Your task to perform on an android device: check data usage Image 0: 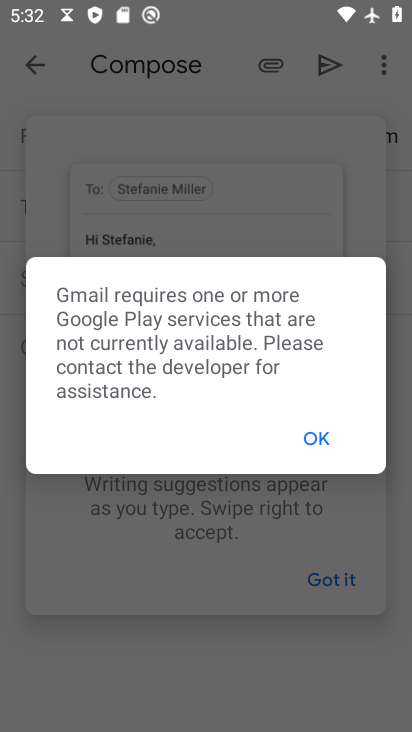
Step 0: press home button
Your task to perform on an android device: check data usage Image 1: 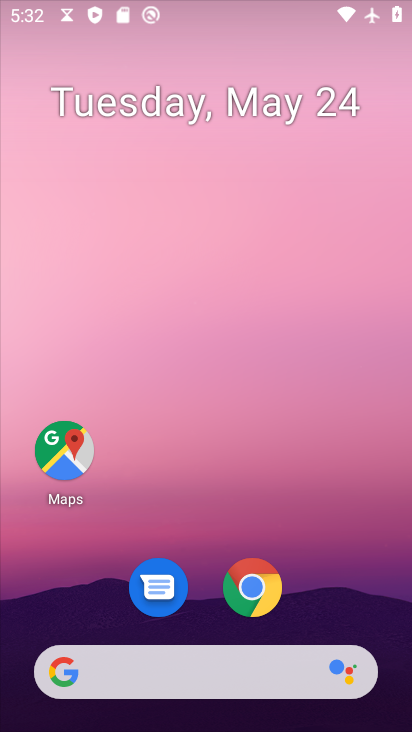
Step 1: drag from (340, 474) to (201, 45)
Your task to perform on an android device: check data usage Image 2: 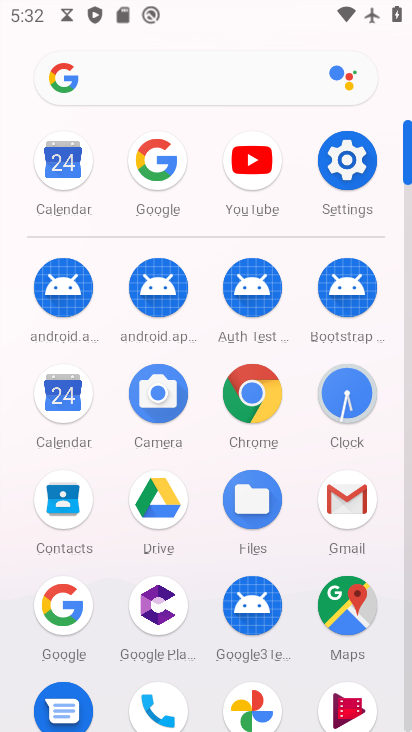
Step 2: click (362, 148)
Your task to perform on an android device: check data usage Image 3: 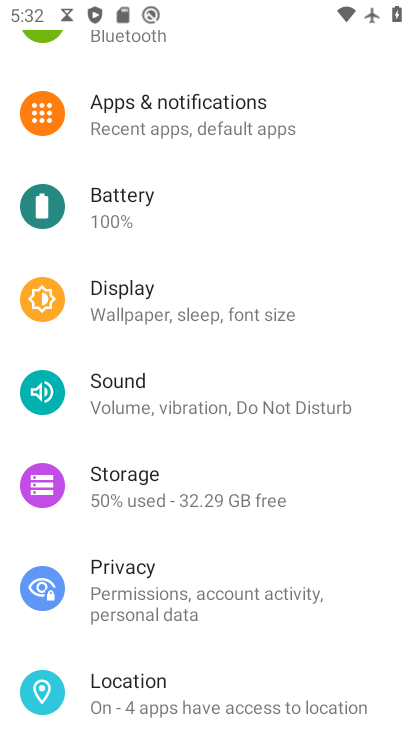
Step 3: drag from (249, 186) to (205, 724)
Your task to perform on an android device: check data usage Image 4: 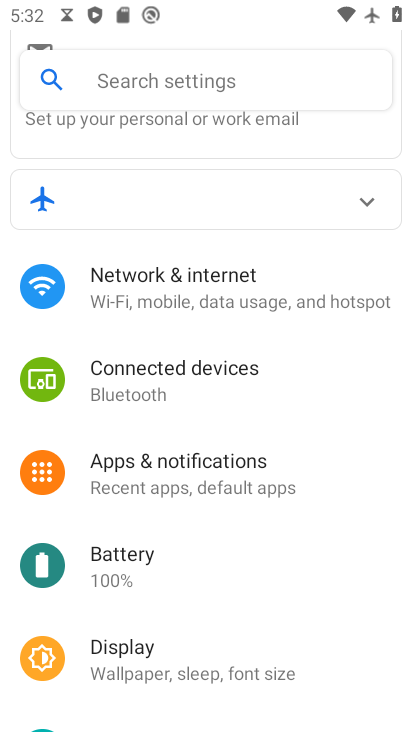
Step 4: click (182, 271)
Your task to perform on an android device: check data usage Image 5: 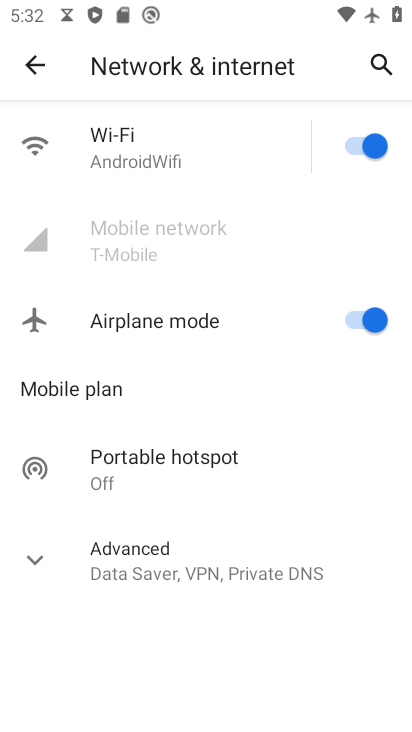
Step 5: task complete